Your task to perform on an android device: change alarm snooze length Image 0: 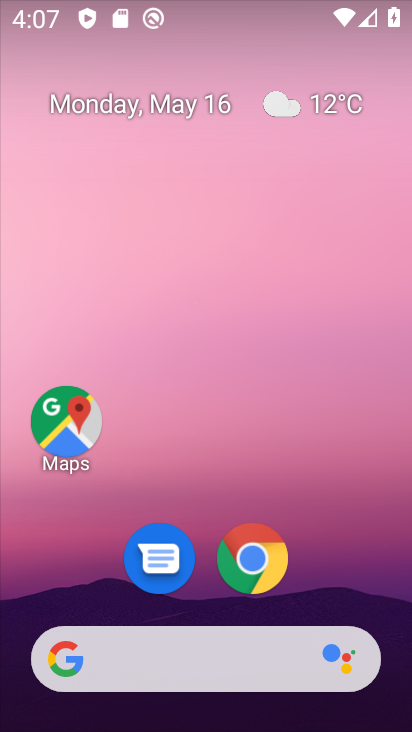
Step 0: drag from (328, 556) to (308, 178)
Your task to perform on an android device: change alarm snooze length Image 1: 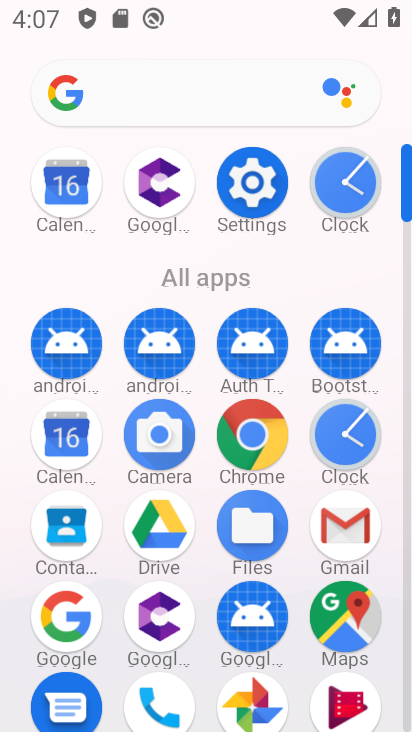
Step 1: click (376, 447)
Your task to perform on an android device: change alarm snooze length Image 2: 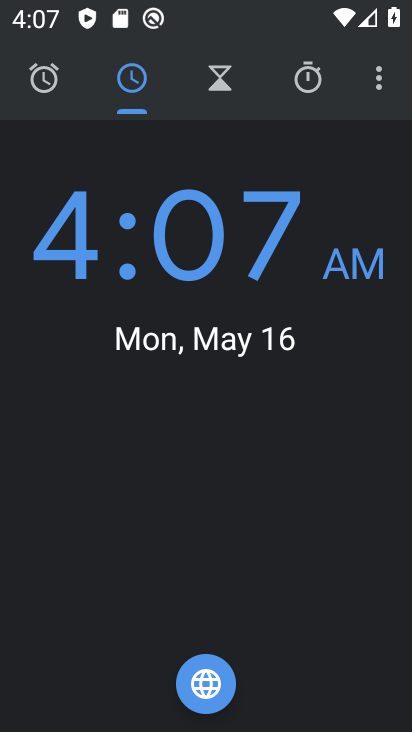
Step 2: click (371, 83)
Your task to perform on an android device: change alarm snooze length Image 3: 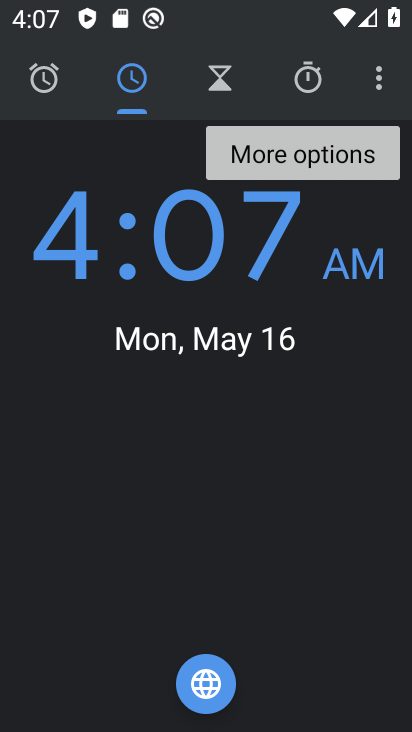
Step 3: click (380, 87)
Your task to perform on an android device: change alarm snooze length Image 4: 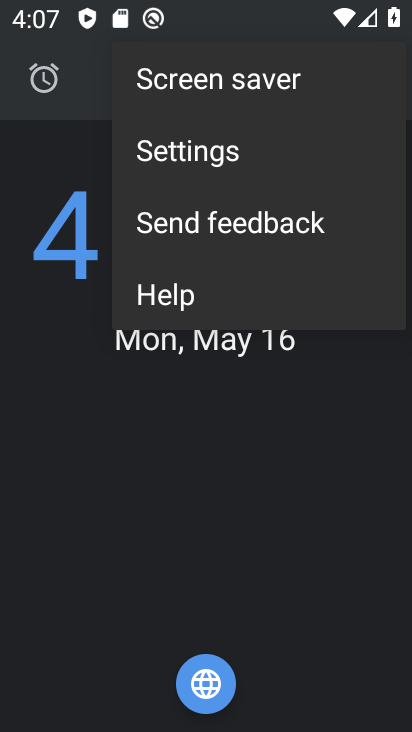
Step 4: click (251, 151)
Your task to perform on an android device: change alarm snooze length Image 5: 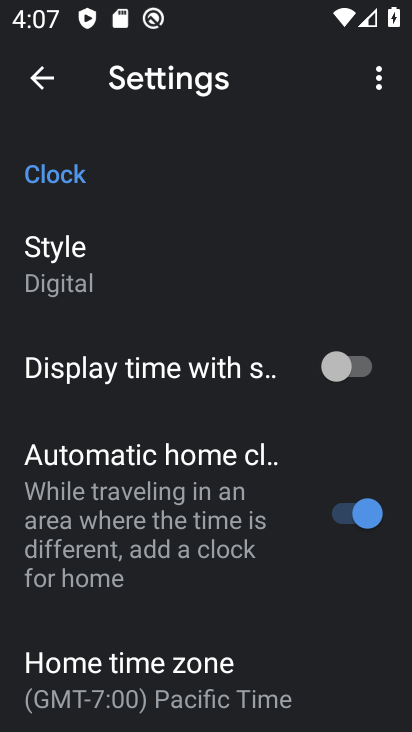
Step 5: drag from (152, 559) to (160, 198)
Your task to perform on an android device: change alarm snooze length Image 6: 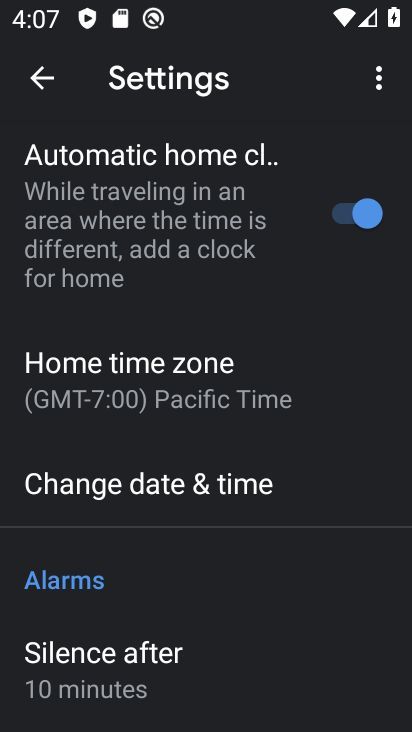
Step 6: drag from (255, 673) to (224, 292)
Your task to perform on an android device: change alarm snooze length Image 7: 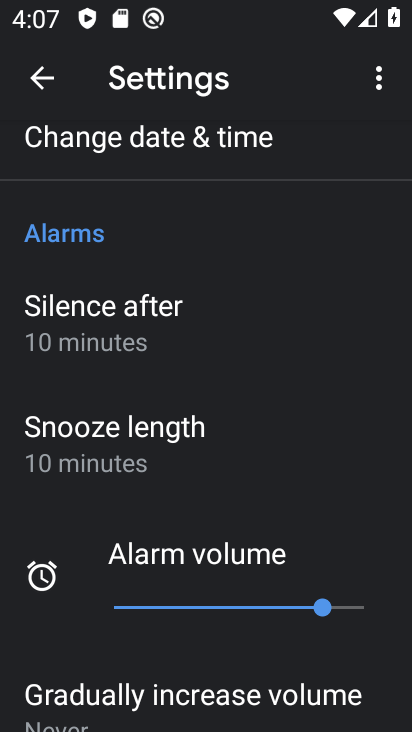
Step 7: drag from (126, 640) to (120, 477)
Your task to perform on an android device: change alarm snooze length Image 8: 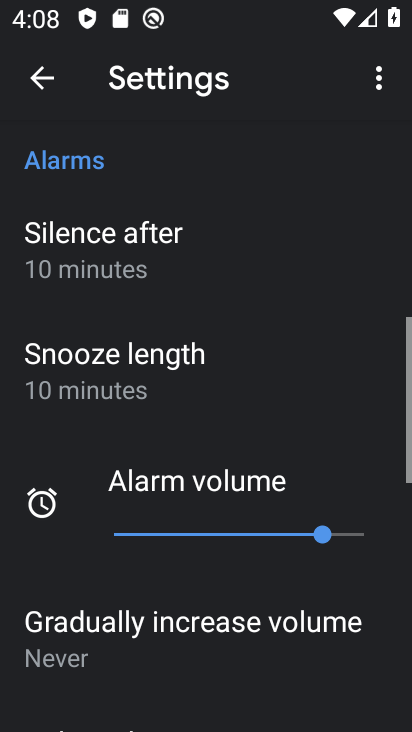
Step 8: click (123, 401)
Your task to perform on an android device: change alarm snooze length Image 9: 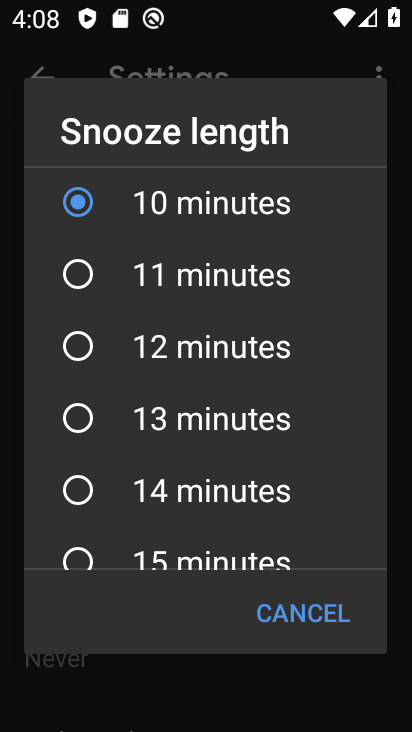
Step 9: click (210, 265)
Your task to perform on an android device: change alarm snooze length Image 10: 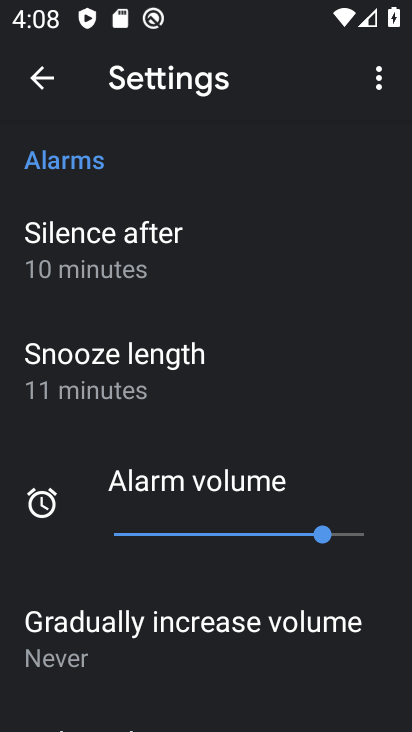
Step 10: task complete